Your task to perform on an android device: turn on wifi Image 0: 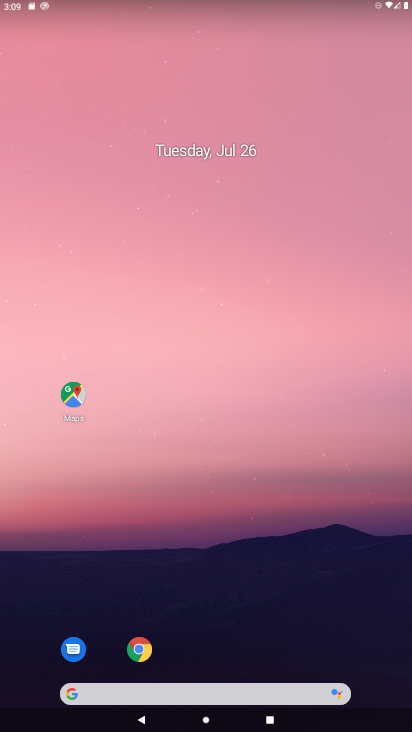
Step 0: drag from (240, 692) to (178, 186)
Your task to perform on an android device: turn on wifi Image 1: 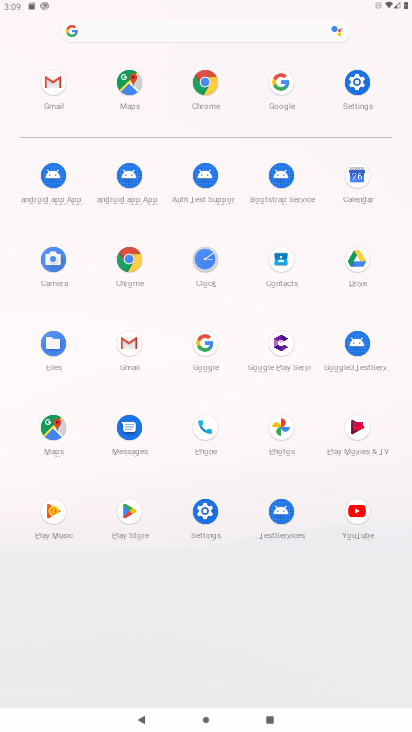
Step 1: click (364, 91)
Your task to perform on an android device: turn on wifi Image 2: 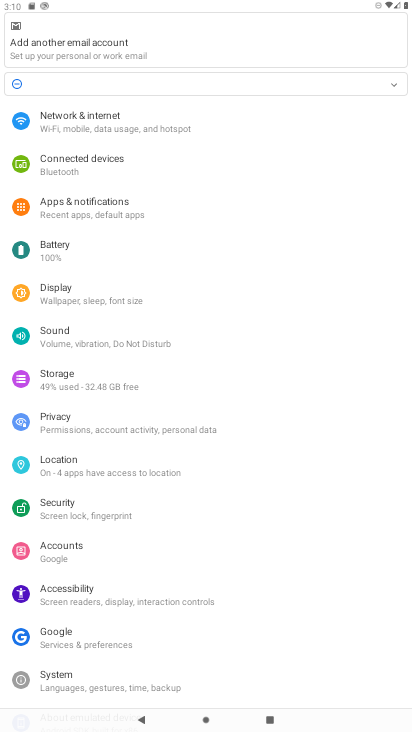
Step 2: click (106, 128)
Your task to perform on an android device: turn on wifi Image 3: 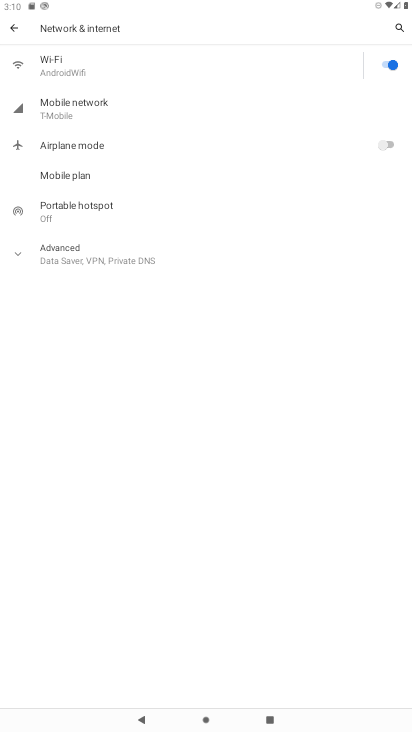
Step 3: task complete